Your task to perform on an android device: turn on wifi Image 0: 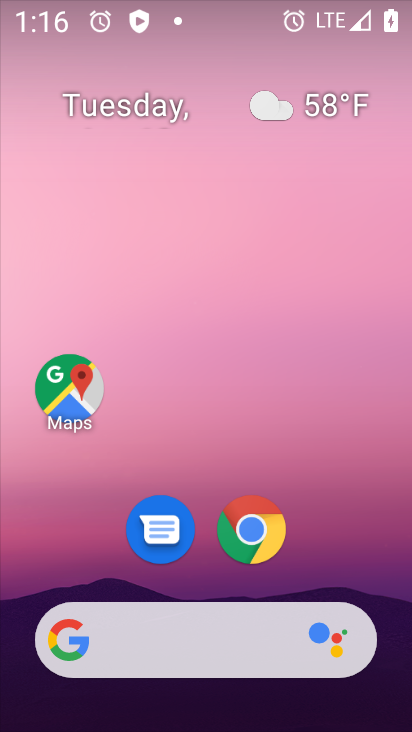
Step 0: drag from (250, 636) to (248, 35)
Your task to perform on an android device: turn on wifi Image 1: 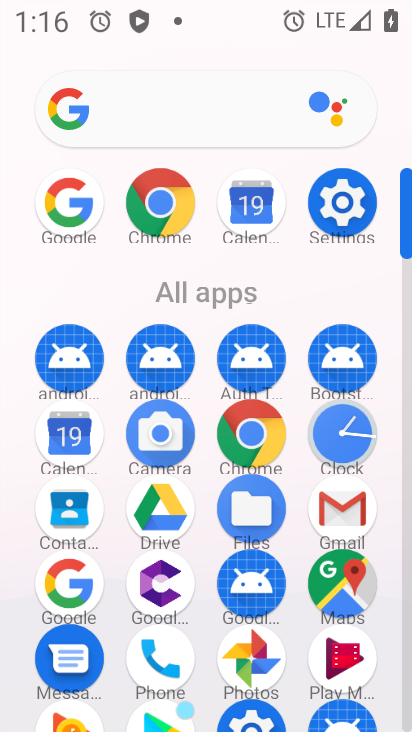
Step 1: click (326, 224)
Your task to perform on an android device: turn on wifi Image 2: 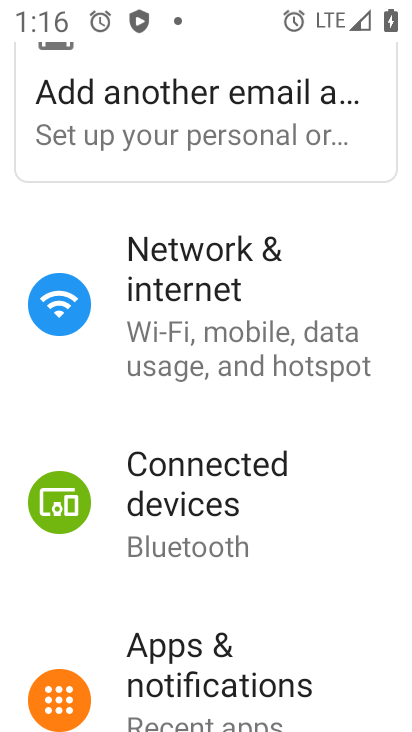
Step 2: click (263, 308)
Your task to perform on an android device: turn on wifi Image 3: 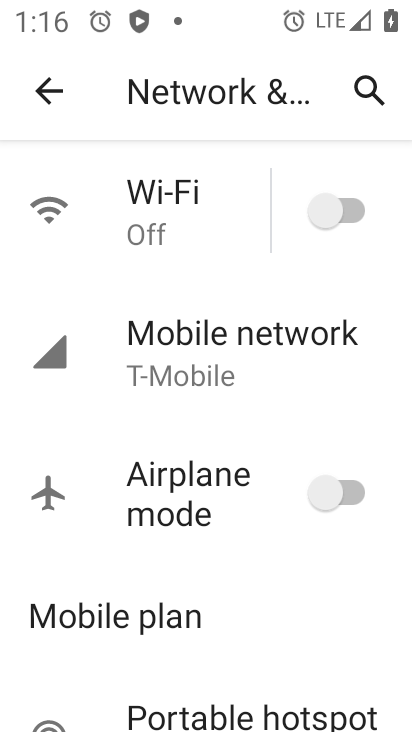
Step 3: click (341, 202)
Your task to perform on an android device: turn on wifi Image 4: 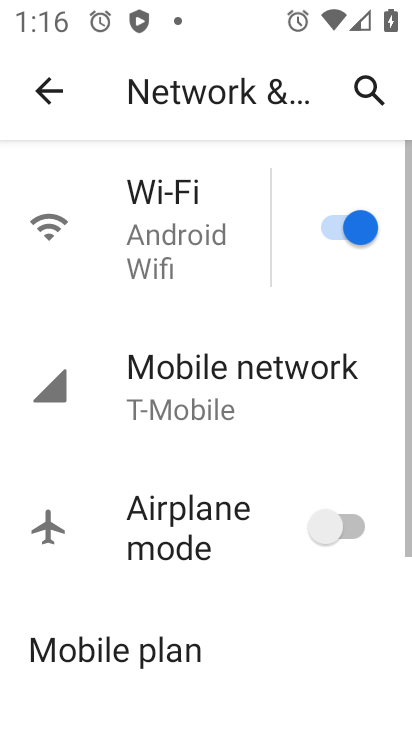
Step 4: task complete